Your task to perform on an android device: Search for pizza restaurants on Maps Image 0: 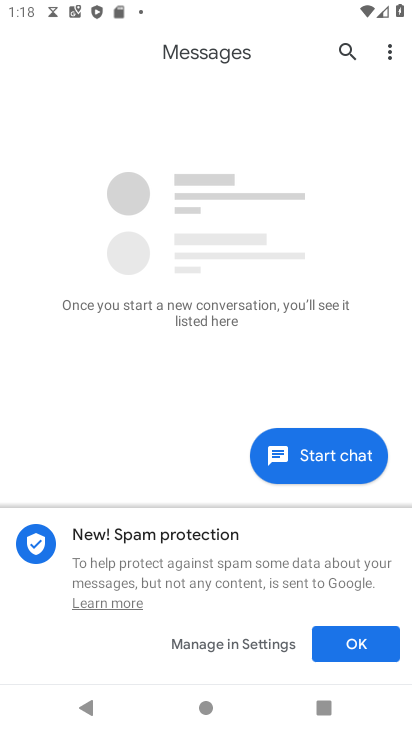
Step 0: press home button
Your task to perform on an android device: Search for pizza restaurants on Maps Image 1: 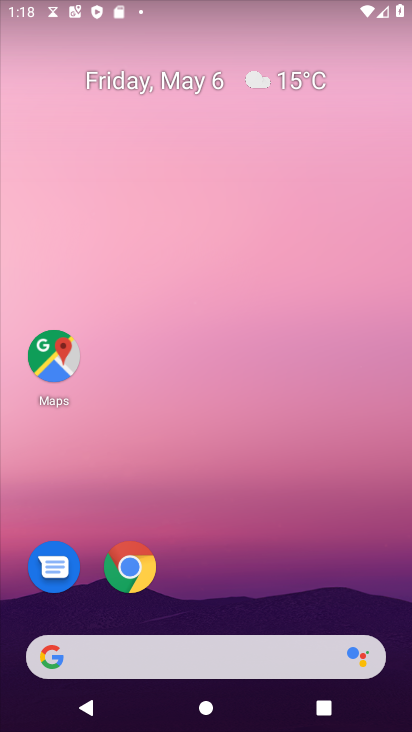
Step 1: click (373, 90)
Your task to perform on an android device: Search for pizza restaurants on Maps Image 2: 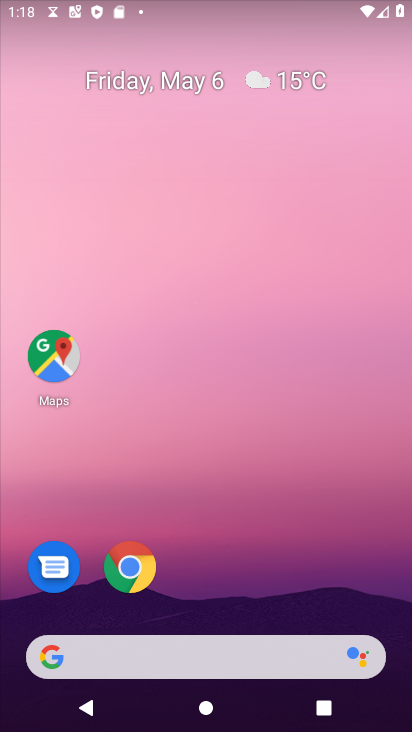
Step 2: click (51, 340)
Your task to perform on an android device: Search for pizza restaurants on Maps Image 3: 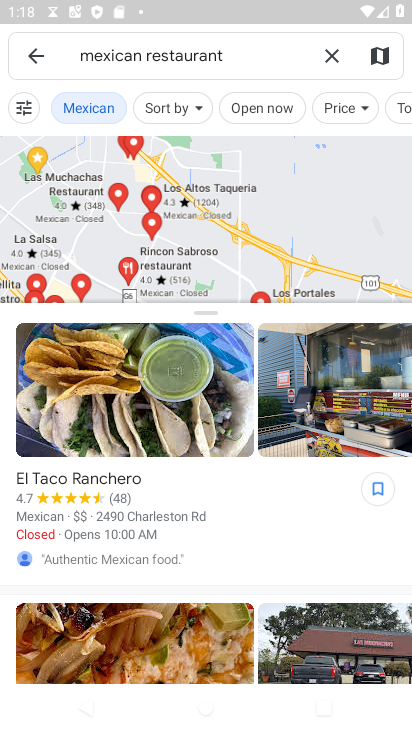
Step 3: click (340, 50)
Your task to perform on an android device: Search for pizza restaurants on Maps Image 4: 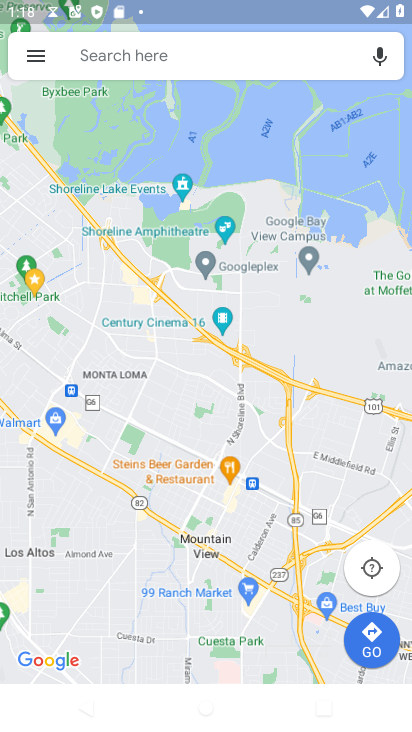
Step 4: click (162, 69)
Your task to perform on an android device: Search for pizza restaurants on Maps Image 5: 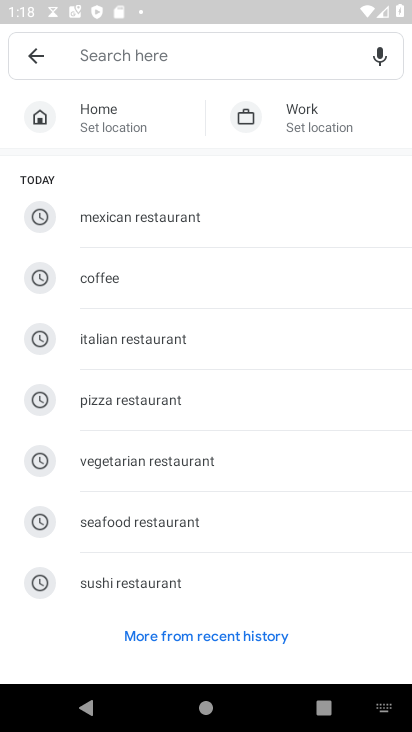
Step 5: click (180, 410)
Your task to perform on an android device: Search for pizza restaurants on Maps Image 6: 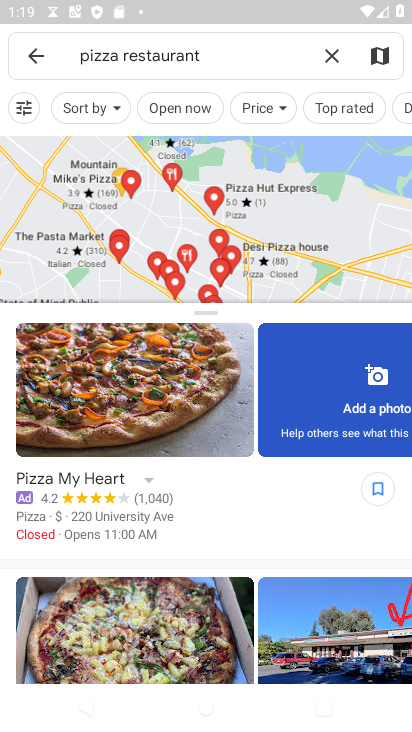
Step 6: task complete